Your task to perform on an android device: toggle pop-ups in chrome Image 0: 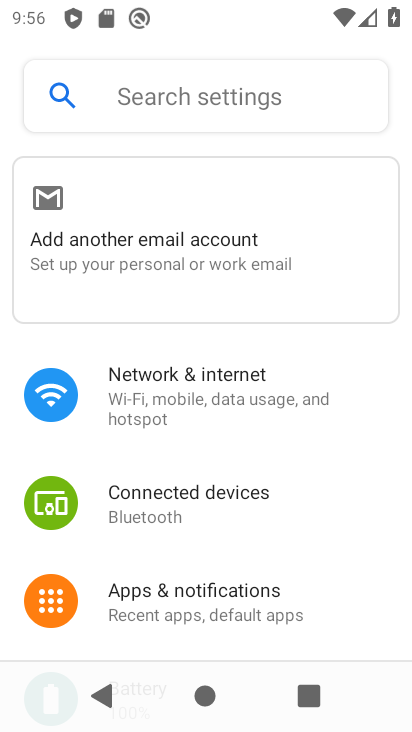
Step 0: press home button
Your task to perform on an android device: toggle pop-ups in chrome Image 1: 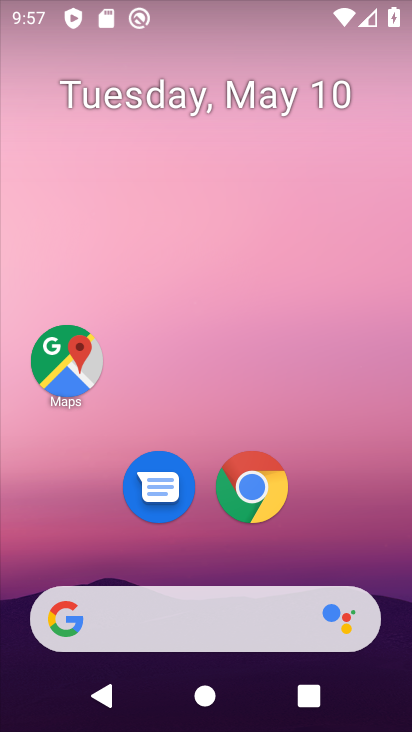
Step 1: click (248, 469)
Your task to perform on an android device: toggle pop-ups in chrome Image 2: 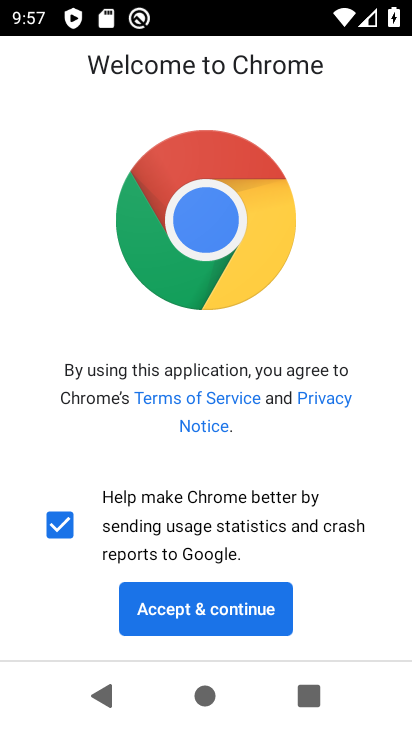
Step 2: click (224, 627)
Your task to perform on an android device: toggle pop-ups in chrome Image 3: 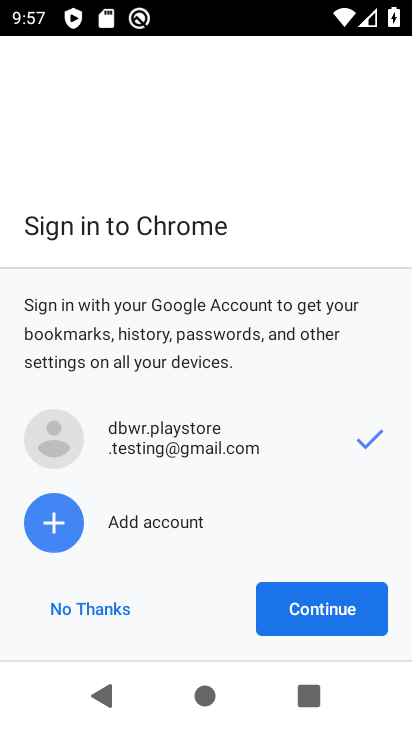
Step 3: click (349, 604)
Your task to perform on an android device: toggle pop-ups in chrome Image 4: 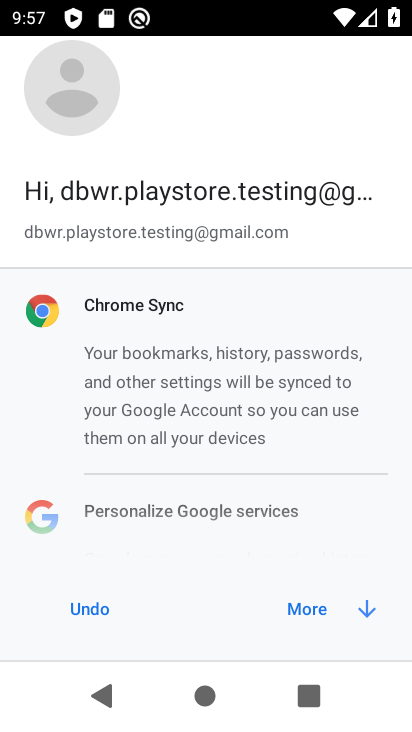
Step 4: click (349, 604)
Your task to perform on an android device: toggle pop-ups in chrome Image 5: 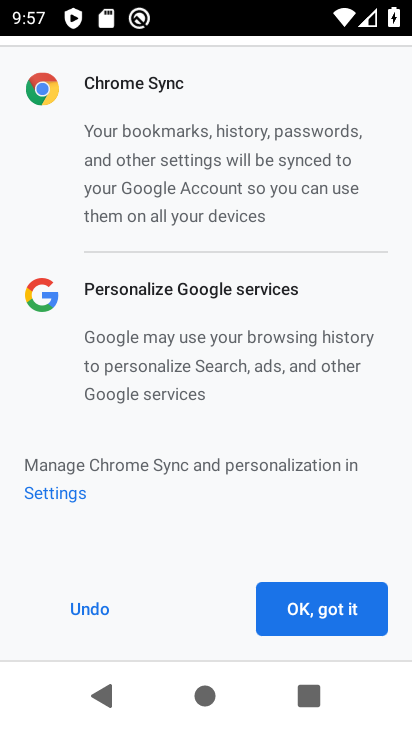
Step 5: click (349, 604)
Your task to perform on an android device: toggle pop-ups in chrome Image 6: 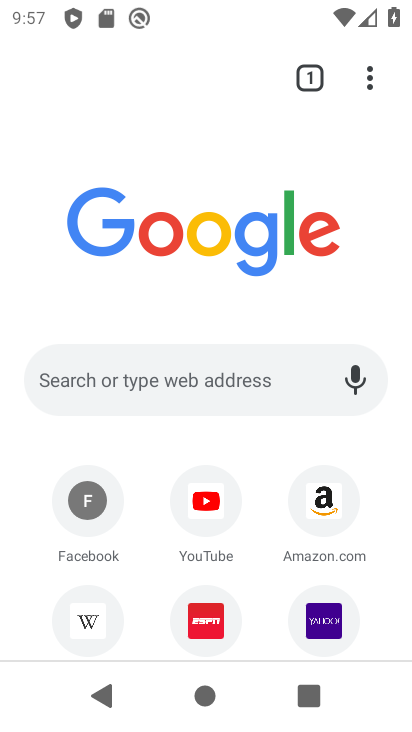
Step 6: drag from (372, 93) to (109, 549)
Your task to perform on an android device: toggle pop-ups in chrome Image 7: 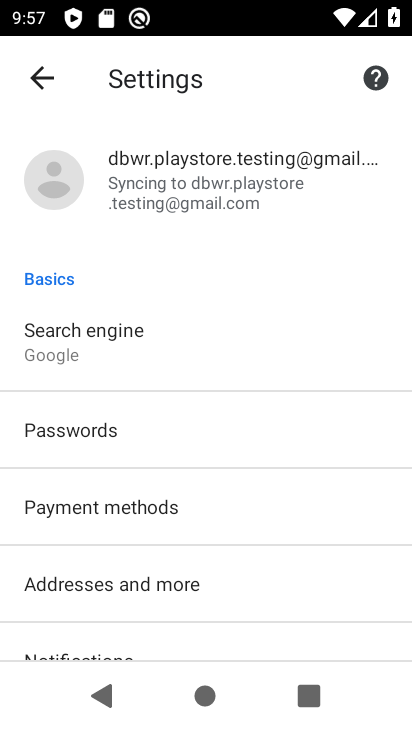
Step 7: drag from (223, 608) to (243, 226)
Your task to perform on an android device: toggle pop-ups in chrome Image 8: 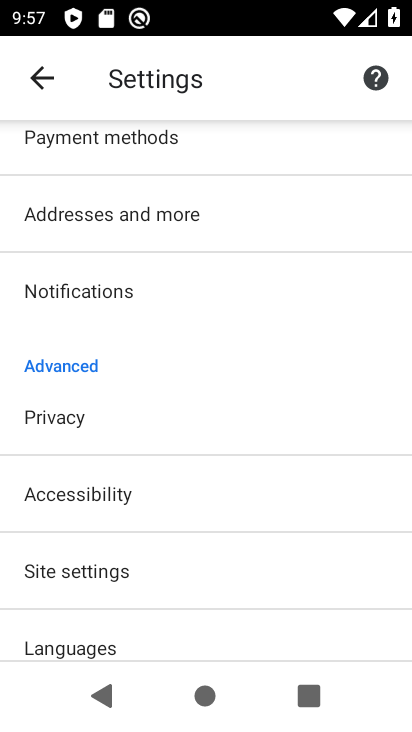
Step 8: click (153, 566)
Your task to perform on an android device: toggle pop-ups in chrome Image 9: 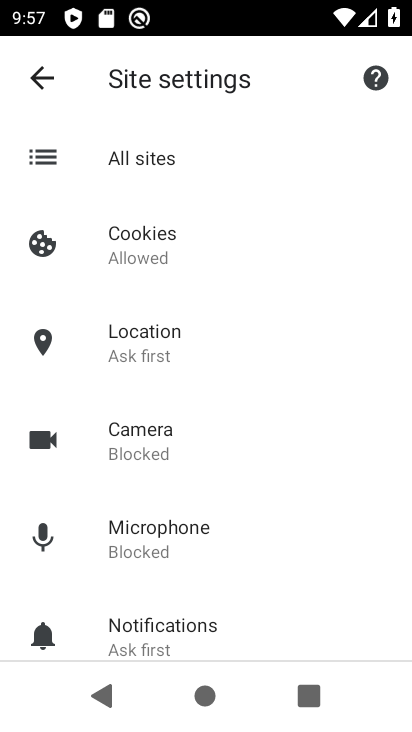
Step 9: drag from (277, 505) to (273, 296)
Your task to perform on an android device: toggle pop-ups in chrome Image 10: 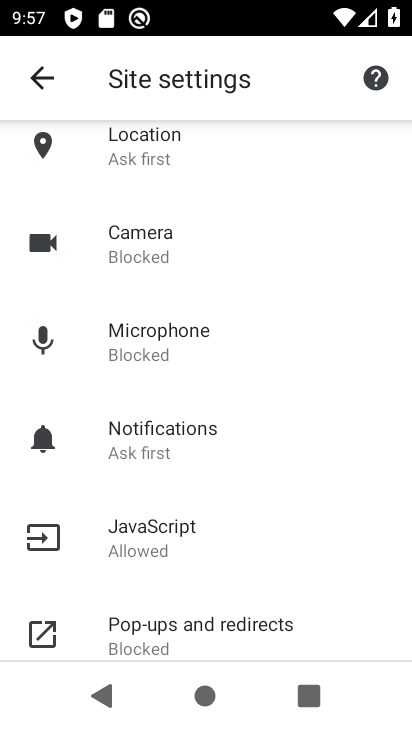
Step 10: click (235, 636)
Your task to perform on an android device: toggle pop-ups in chrome Image 11: 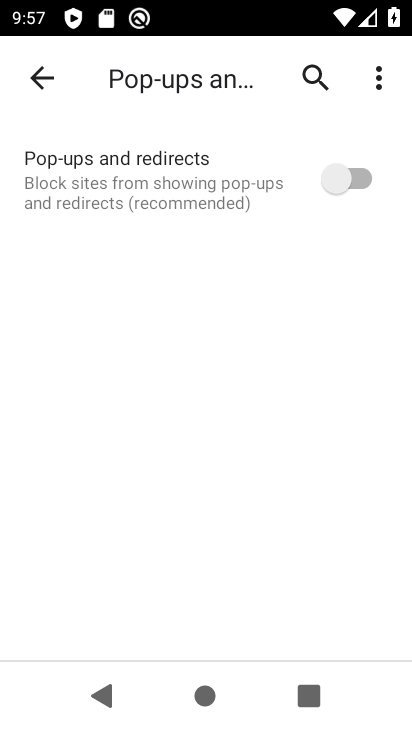
Step 11: click (337, 174)
Your task to perform on an android device: toggle pop-ups in chrome Image 12: 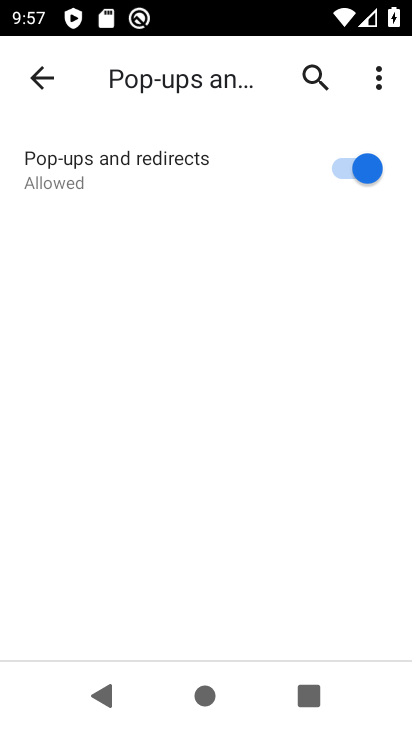
Step 12: task complete